Your task to perform on an android device: Search for sushi restaurants on Maps Image 0: 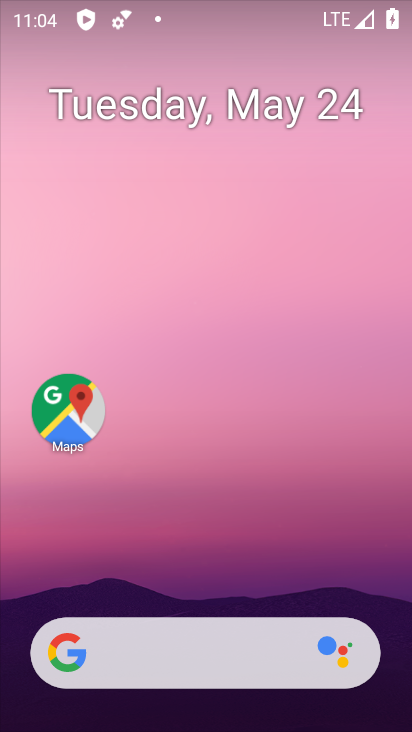
Step 0: click (82, 418)
Your task to perform on an android device: Search for sushi restaurants on Maps Image 1: 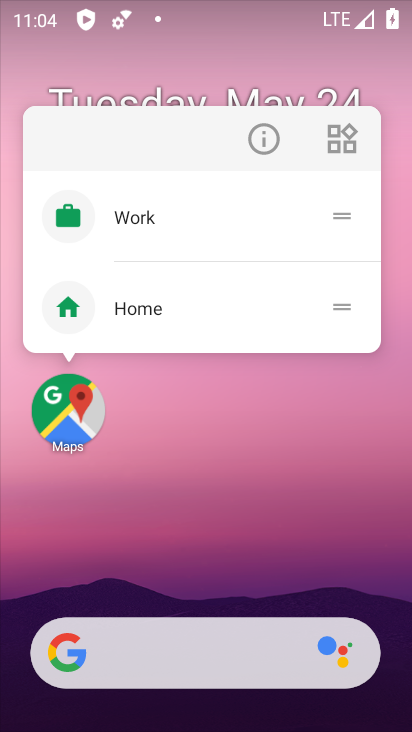
Step 1: click (91, 403)
Your task to perform on an android device: Search for sushi restaurants on Maps Image 2: 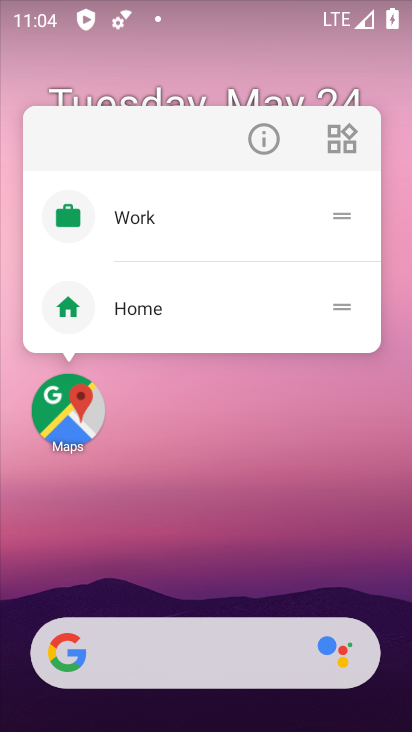
Step 2: click (91, 403)
Your task to perform on an android device: Search for sushi restaurants on Maps Image 3: 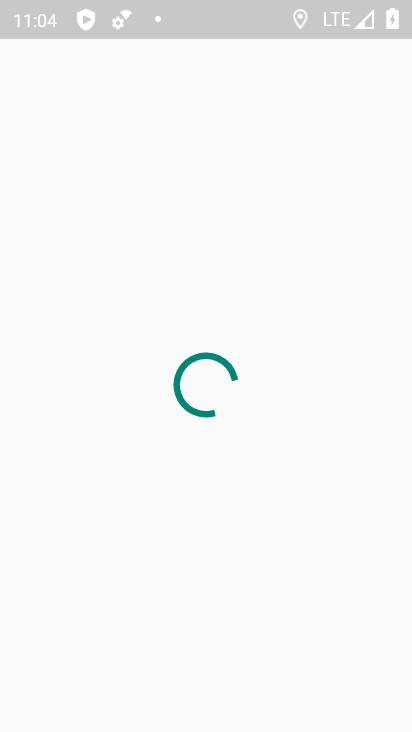
Step 3: click (244, 93)
Your task to perform on an android device: Search for sushi restaurants on Maps Image 4: 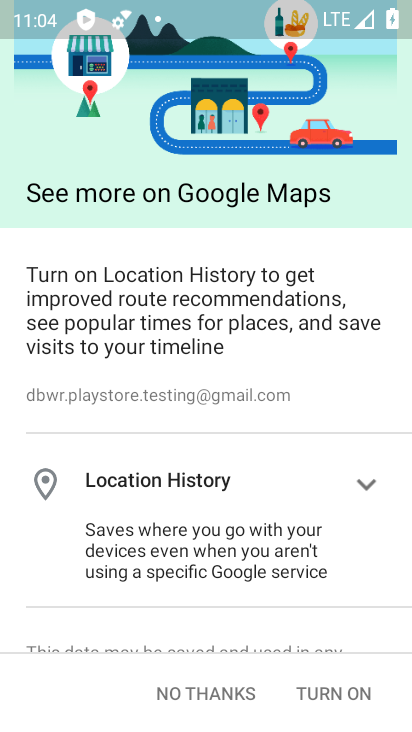
Step 4: click (327, 689)
Your task to perform on an android device: Search for sushi restaurants on Maps Image 5: 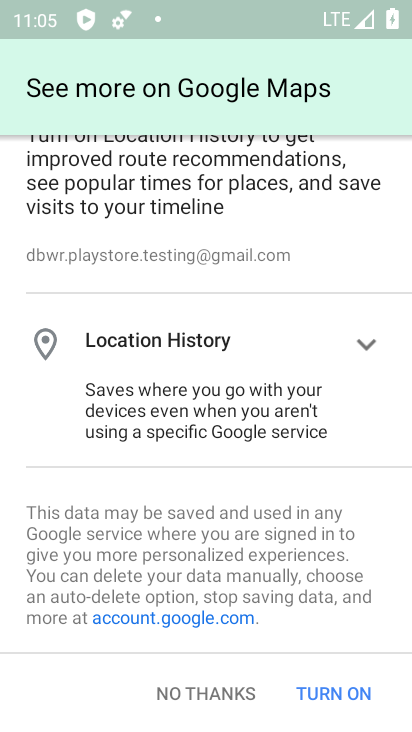
Step 5: click (321, 685)
Your task to perform on an android device: Search for sushi restaurants on Maps Image 6: 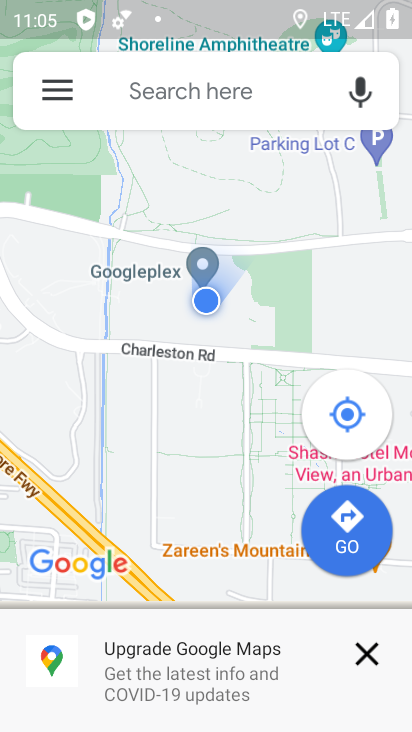
Step 6: click (246, 88)
Your task to perform on an android device: Search for sushi restaurants on Maps Image 7: 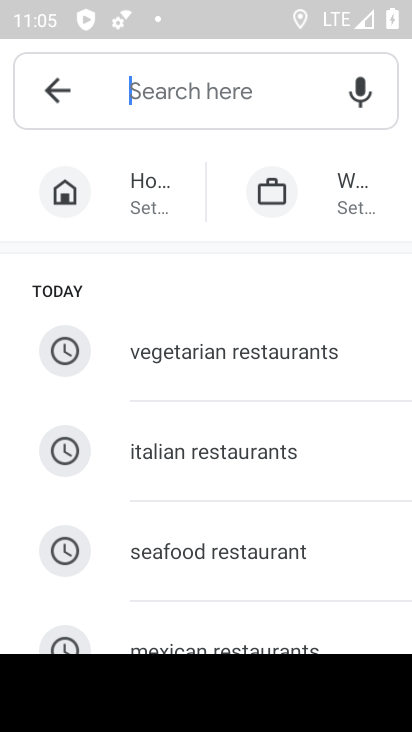
Step 7: type "sushi restaurants"
Your task to perform on an android device: Search for sushi restaurants on Maps Image 8: 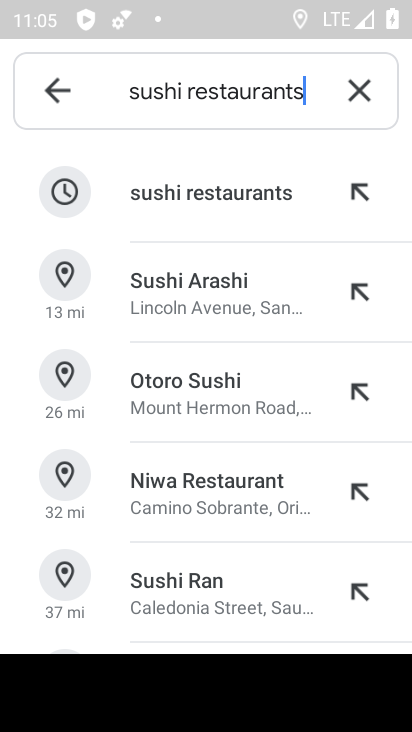
Step 8: click (257, 212)
Your task to perform on an android device: Search for sushi restaurants on Maps Image 9: 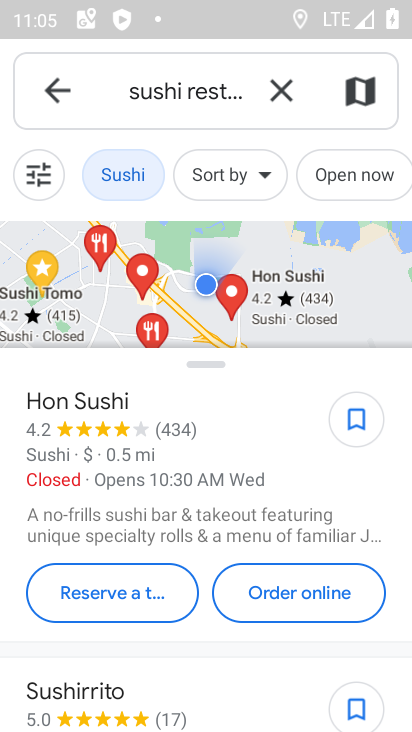
Step 9: task complete